Your task to perform on an android device: Check the news Image 0: 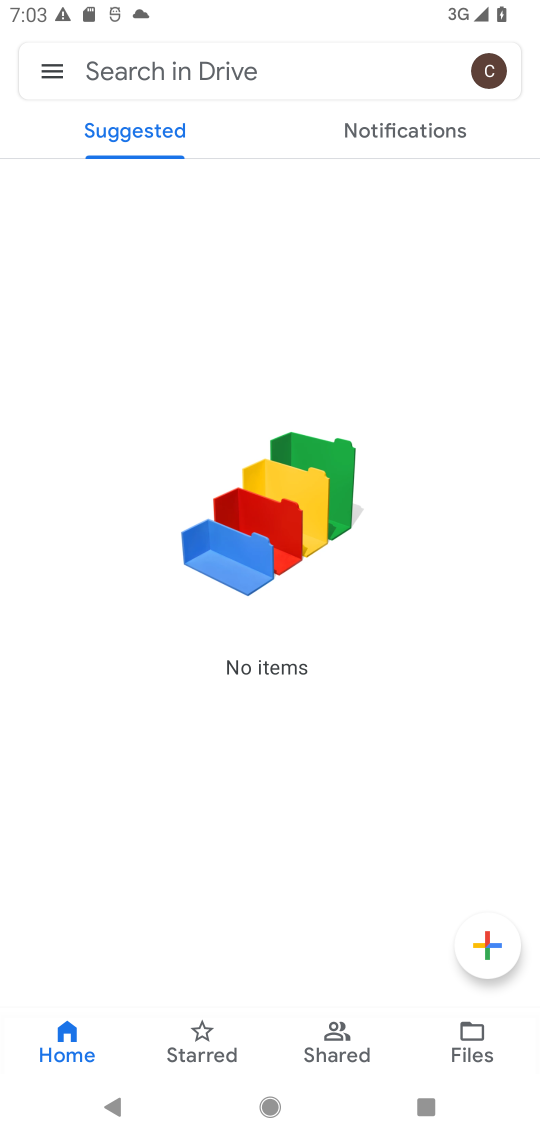
Step 0: press home button
Your task to perform on an android device: Check the news Image 1: 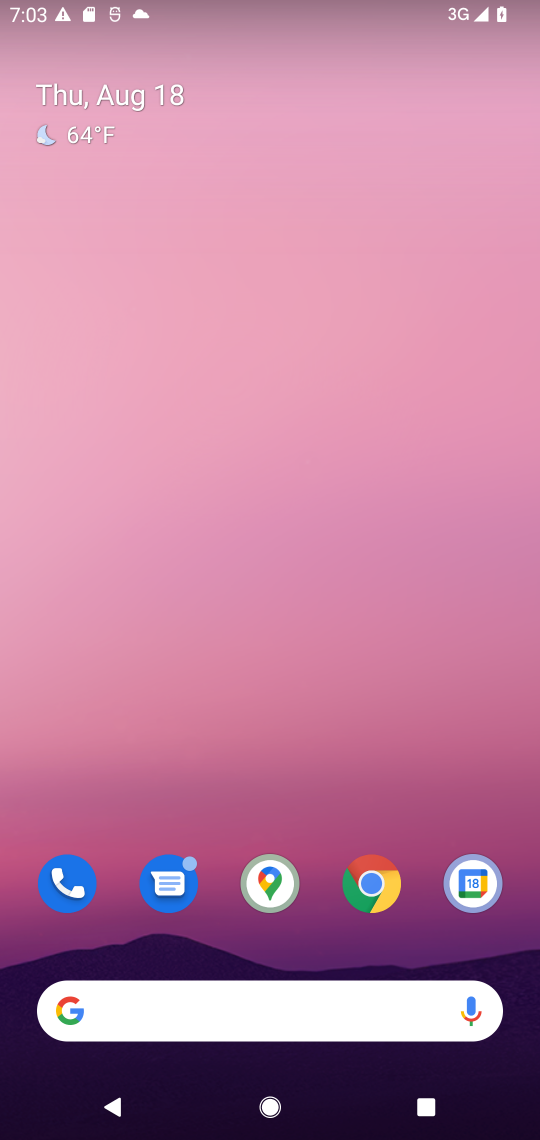
Step 1: click (158, 1013)
Your task to perform on an android device: Check the news Image 2: 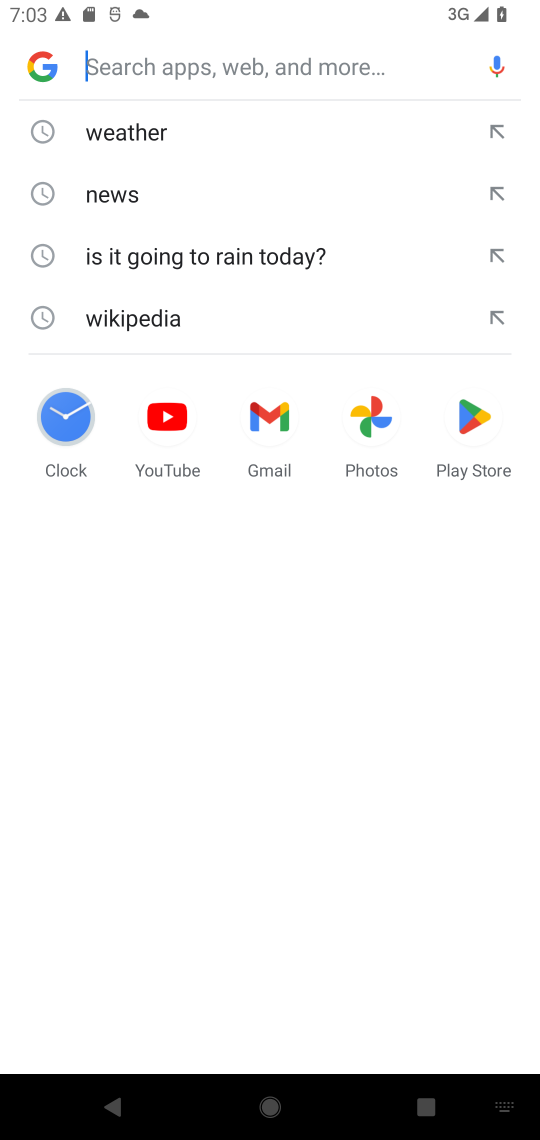
Step 2: type "Check the news"
Your task to perform on an android device: Check the news Image 3: 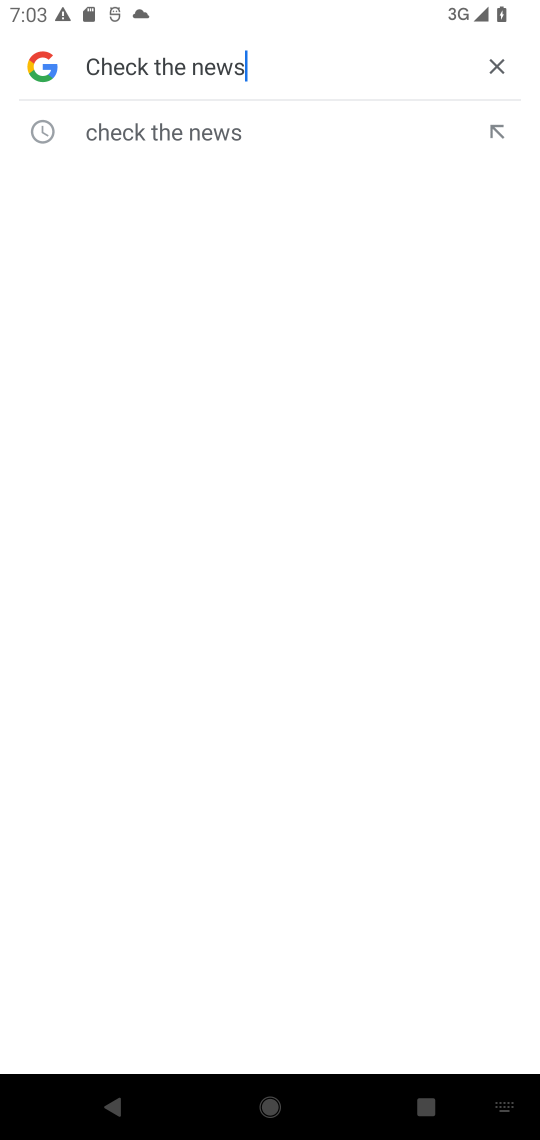
Step 3: click (153, 138)
Your task to perform on an android device: Check the news Image 4: 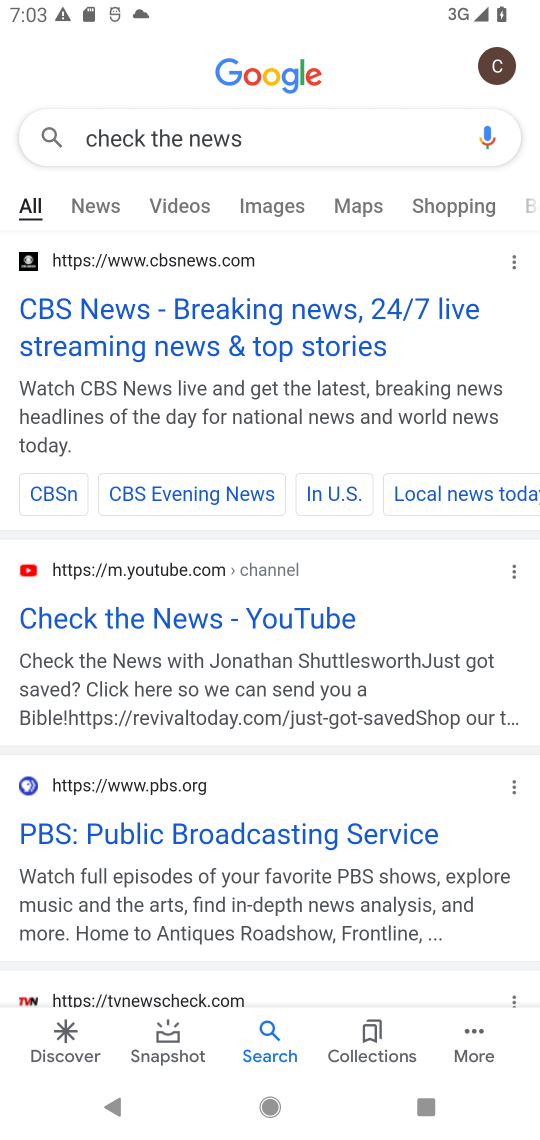
Step 4: task complete